Your task to perform on an android device: Open wifi settings Image 0: 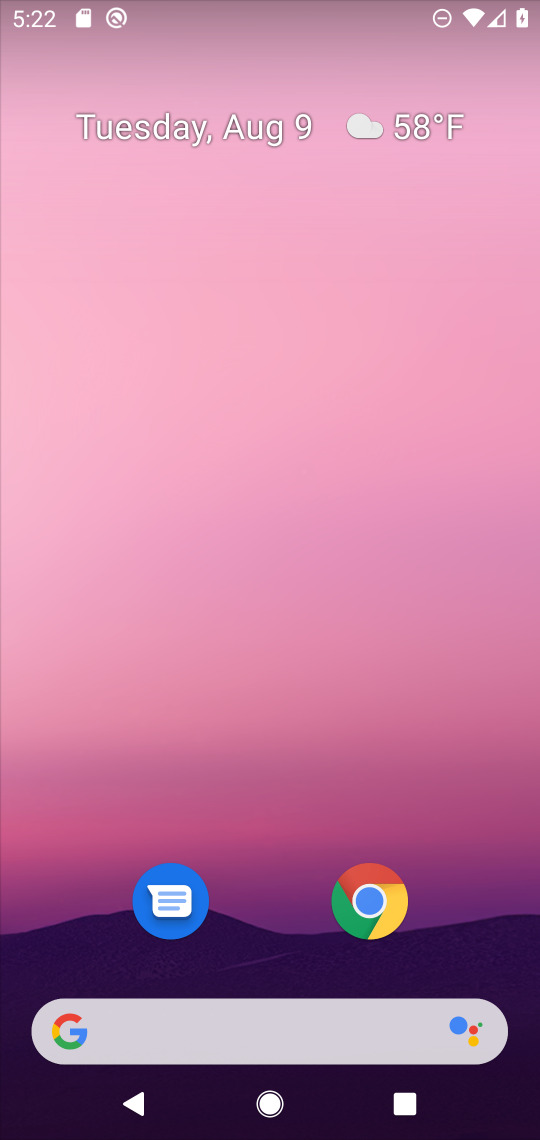
Step 0: drag from (208, 54) to (224, 822)
Your task to perform on an android device: Open wifi settings Image 1: 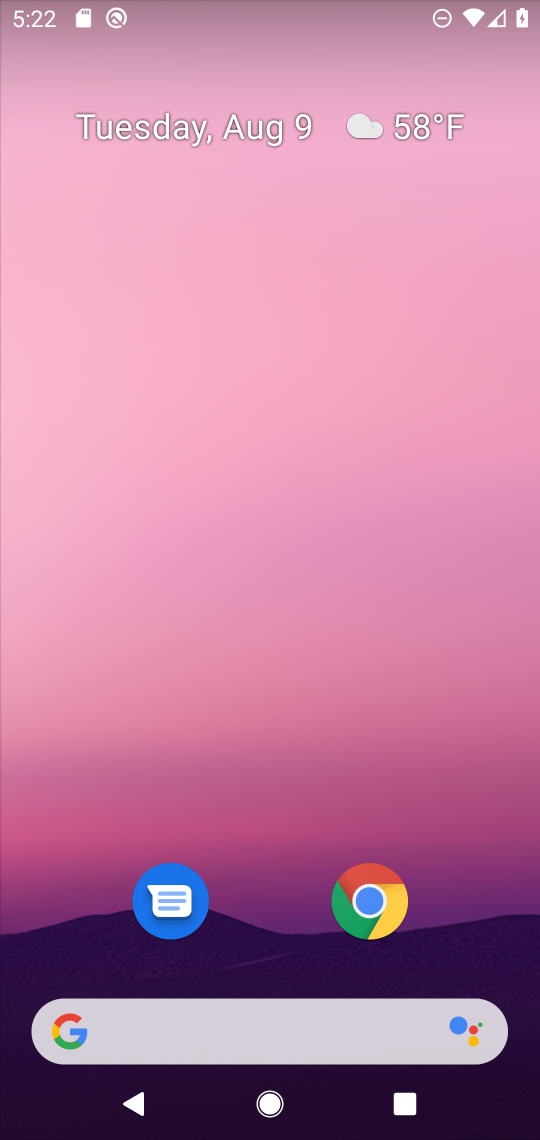
Step 1: drag from (187, 20) to (143, 681)
Your task to perform on an android device: Open wifi settings Image 2: 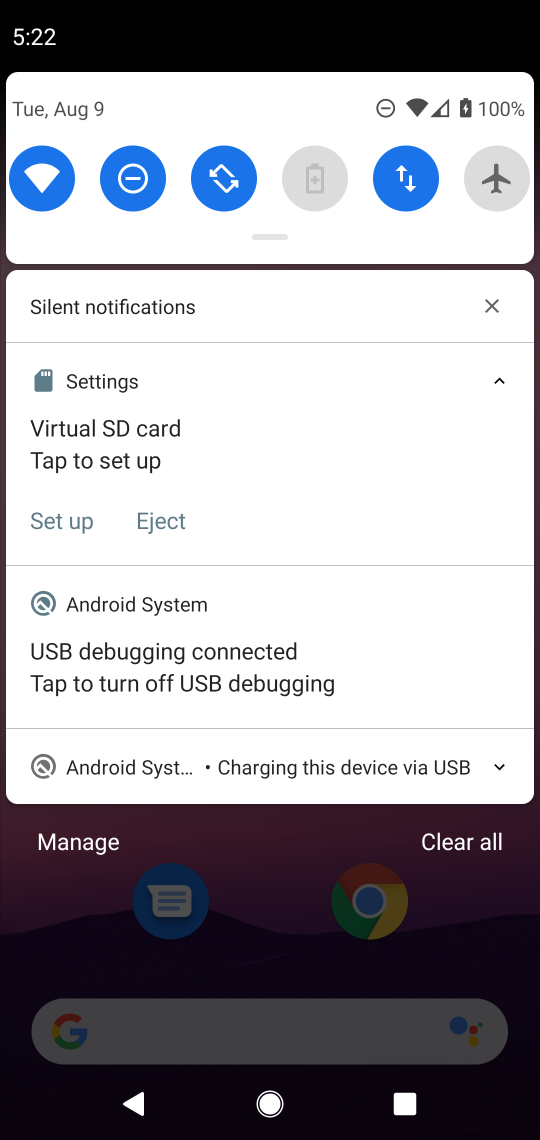
Step 2: click (45, 182)
Your task to perform on an android device: Open wifi settings Image 3: 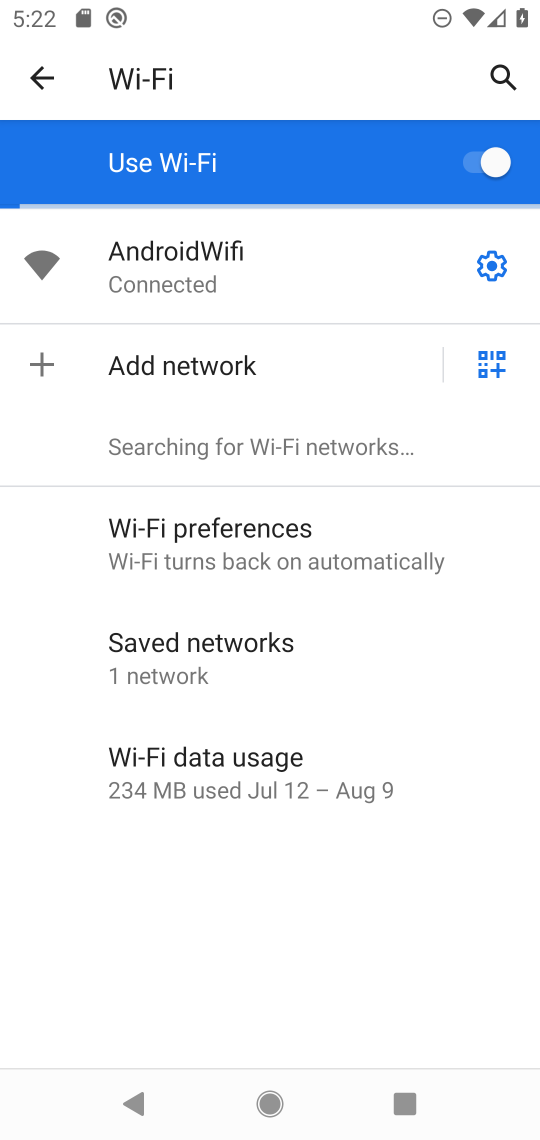
Step 3: task complete